Your task to perform on an android device: install app "YouTube Kids" Image 0: 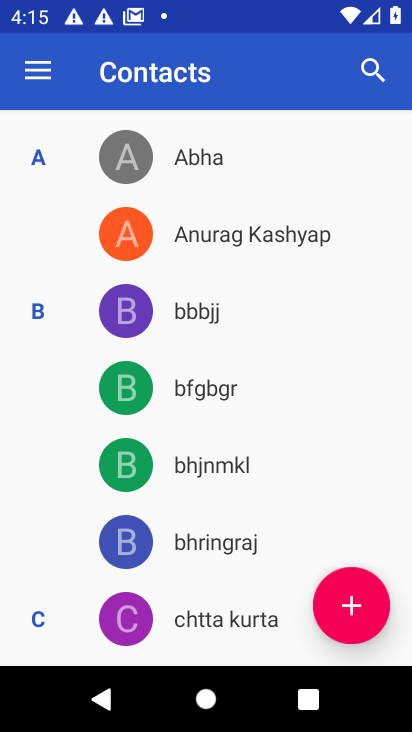
Step 0: press home button
Your task to perform on an android device: install app "YouTube Kids" Image 1: 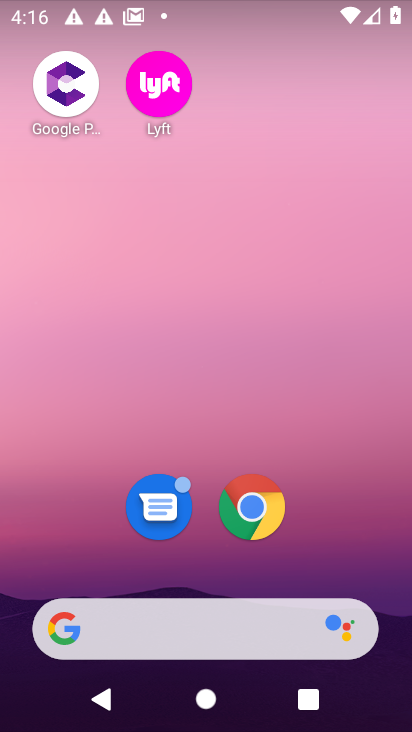
Step 1: drag from (359, 573) to (277, 0)
Your task to perform on an android device: install app "YouTube Kids" Image 2: 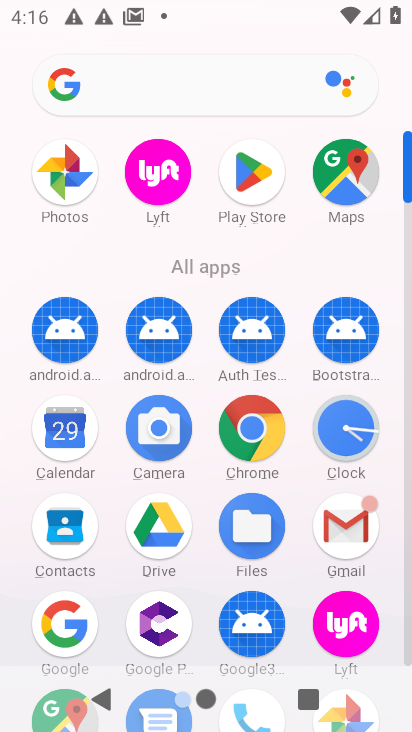
Step 2: click (259, 177)
Your task to perform on an android device: install app "YouTube Kids" Image 3: 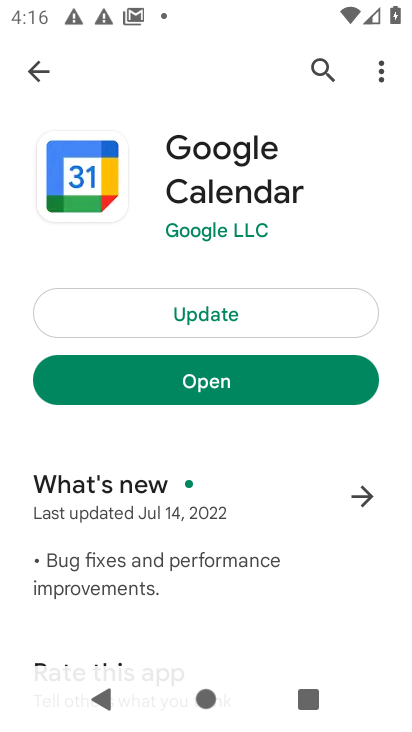
Step 3: click (321, 67)
Your task to perform on an android device: install app "YouTube Kids" Image 4: 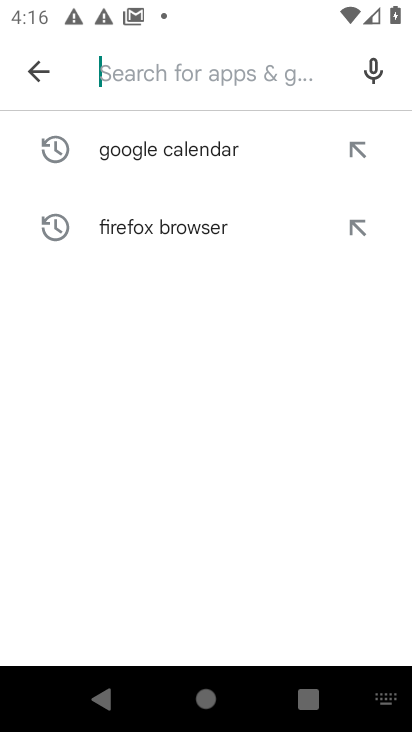
Step 4: type "YouTube Kids"
Your task to perform on an android device: install app "YouTube Kids" Image 5: 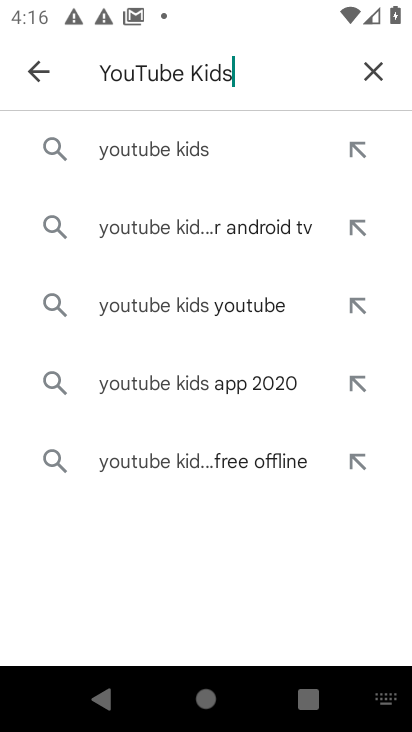
Step 5: click (142, 161)
Your task to perform on an android device: install app "YouTube Kids" Image 6: 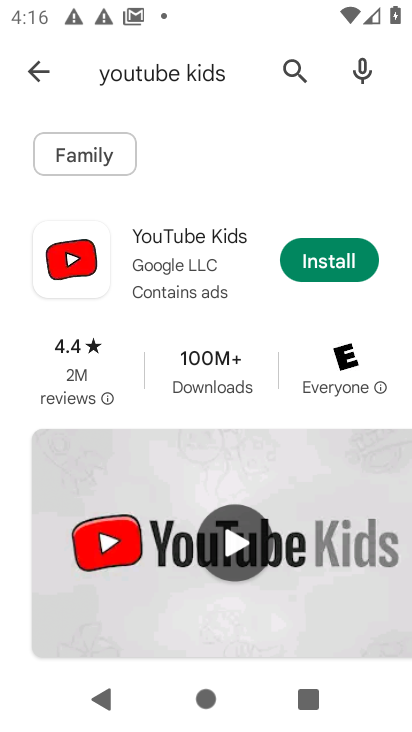
Step 6: click (303, 261)
Your task to perform on an android device: install app "YouTube Kids" Image 7: 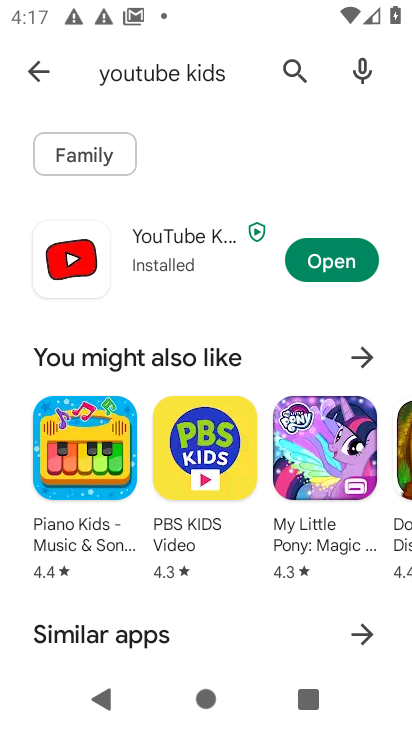
Step 7: task complete